Your task to perform on an android device: turn pop-ups off in chrome Image 0: 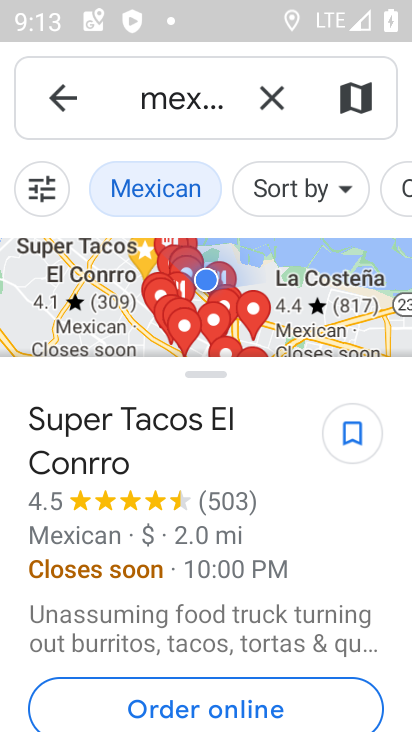
Step 0: press home button
Your task to perform on an android device: turn pop-ups off in chrome Image 1: 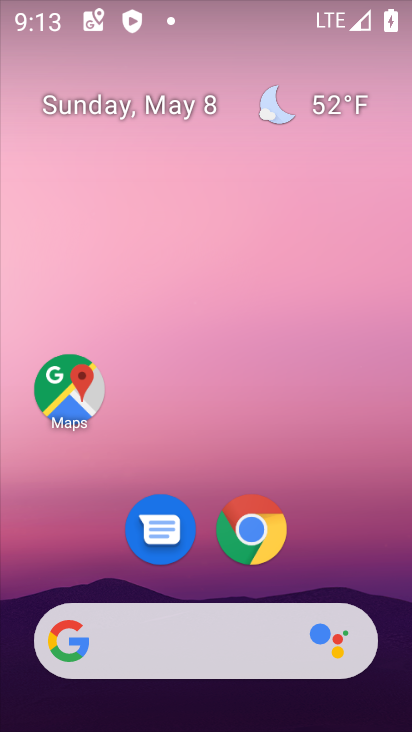
Step 1: drag from (341, 521) to (336, 120)
Your task to perform on an android device: turn pop-ups off in chrome Image 2: 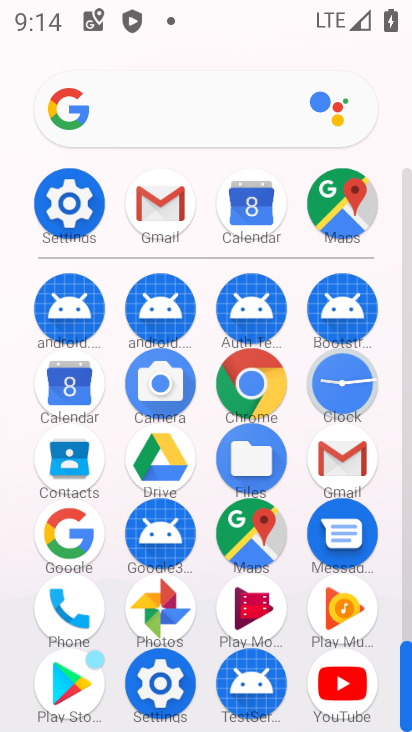
Step 2: click (238, 384)
Your task to perform on an android device: turn pop-ups off in chrome Image 3: 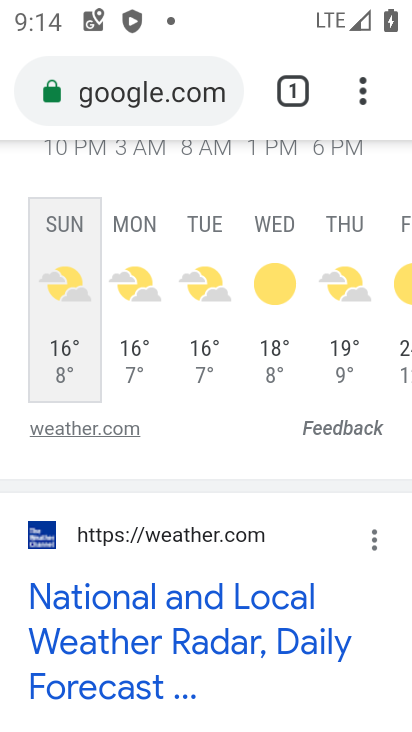
Step 3: drag from (369, 99) to (150, 563)
Your task to perform on an android device: turn pop-ups off in chrome Image 4: 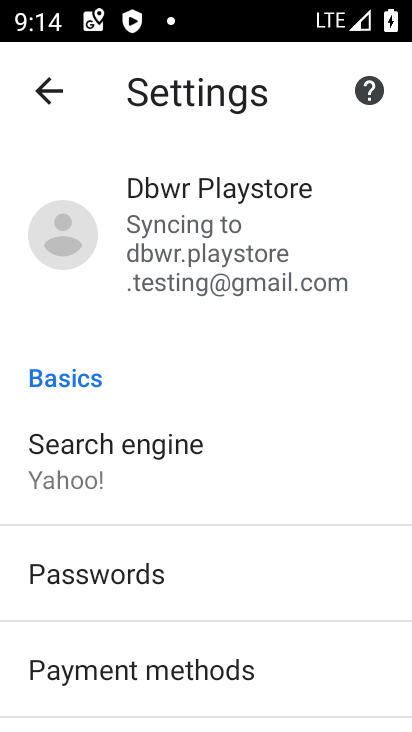
Step 4: drag from (219, 583) to (240, 276)
Your task to perform on an android device: turn pop-ups off in chrome Image 5: 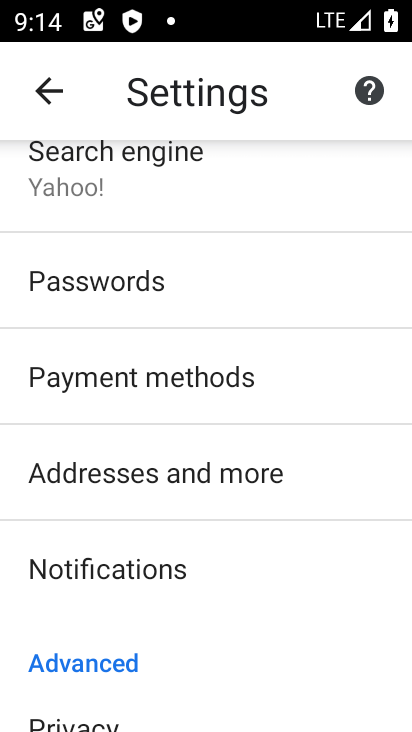
Step 5: drag from (218, 627) to (298, 252)
Your task to perform on an android device: turn pop-ups off in chrome Image 6: 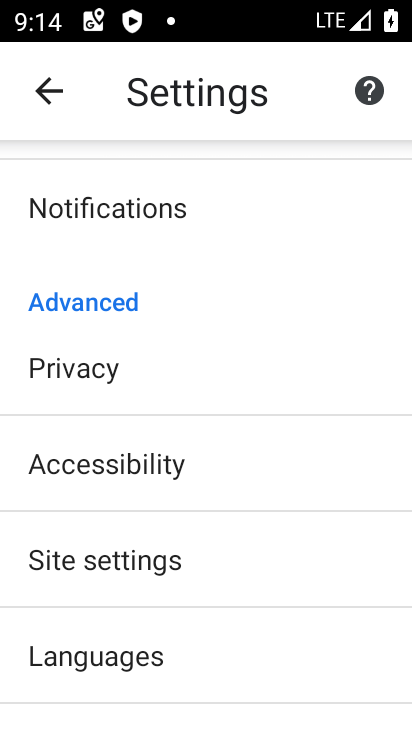
Step 6: click (183, 560)
Your task to perform on an android device: turn pop-ups off in chrome Image 7: 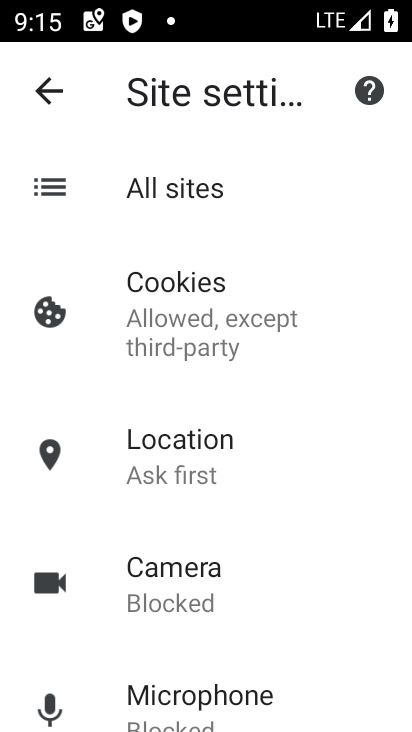
Step 7: drag from (259, 626) to (326, 251)
Your task to perform on an android device: turn pop-ups off in chrome Image 8: 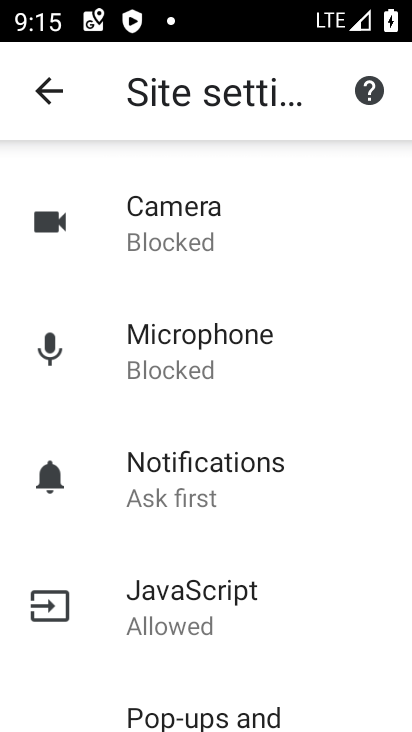
Step 8: drag from (263, 628) to (314, 296)
Your task to perform on an android device: turn pop-ups off in chrome Image 9: 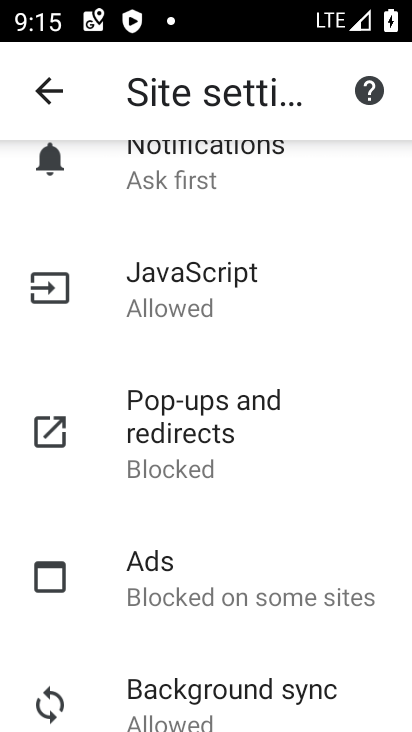
Step 9: click (263, 409)
Your task to perform on an android device: turn pop-ups off in chrome Image 10: 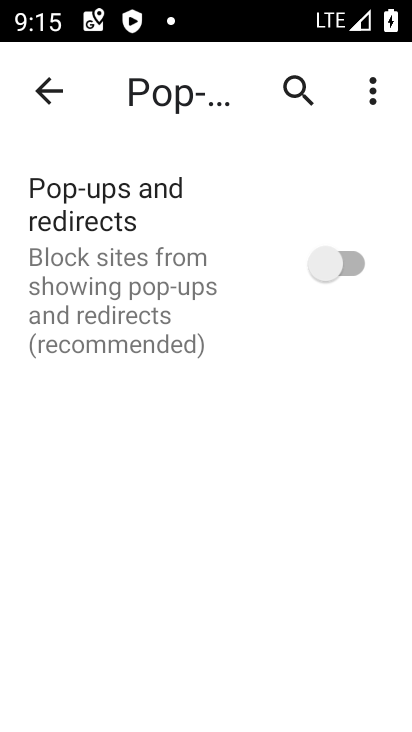
Step 10: task complete